Your task to perform on an android device: Open ESPN.com Image 0: 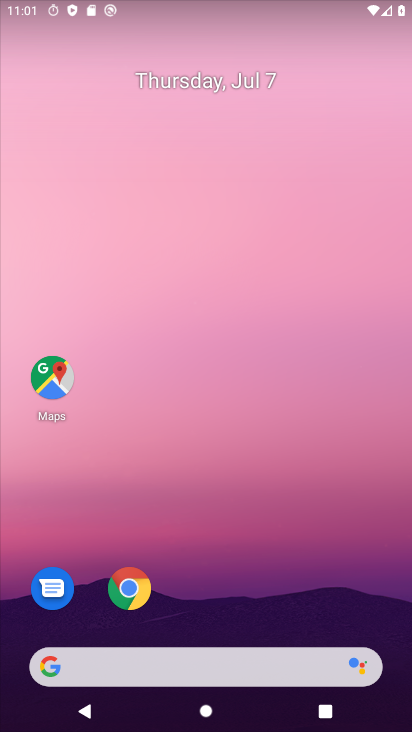
Step 0: click (130, 585)
Your task to perform on an android device: Open ESPN.com Image 1: 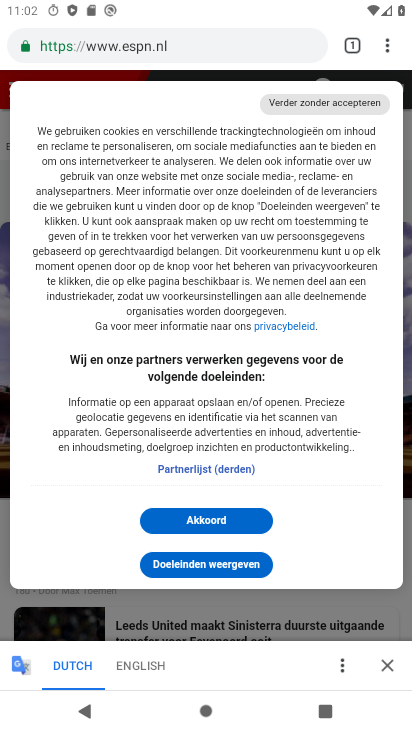
Step 1: task complete